Your task to perform on an android device: Play the last video I watched on Youtube Image 0: 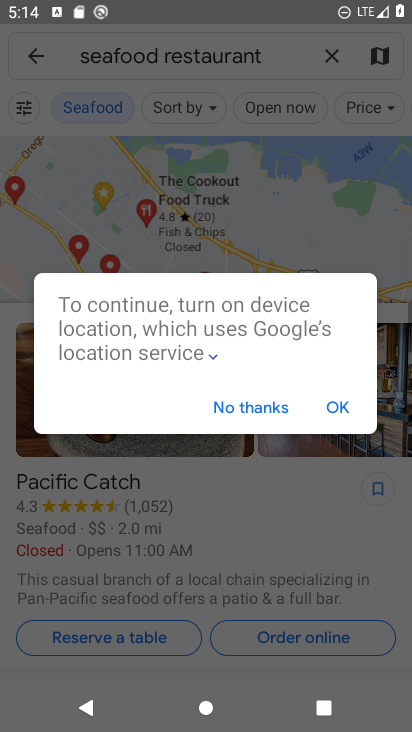
Step 0: press home button
Your task to perform on an android device: Play the last video I watched on Youtube Image 1: 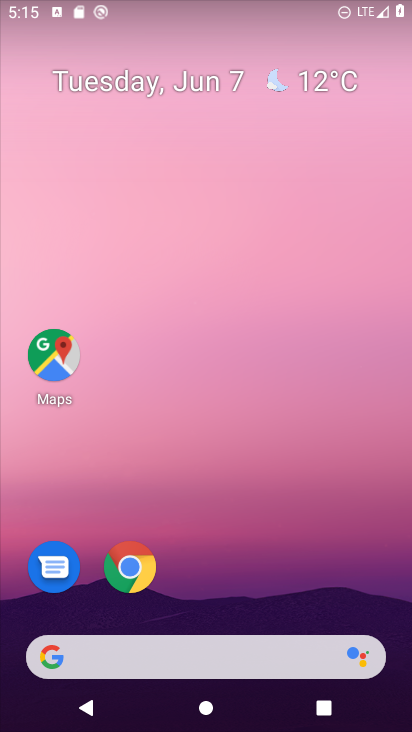
Step 1: drag from (226, 643) to (246, 33)
Your task to perform on an android device: Play the last video I watched on Youtube Image 2: 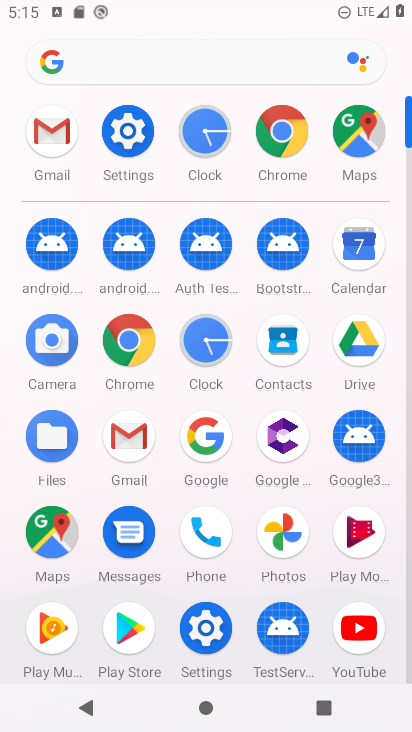
Step 2: click (356, 630)
Your task to perform on an android device: Play the last video I watched on Youtube Image 3: 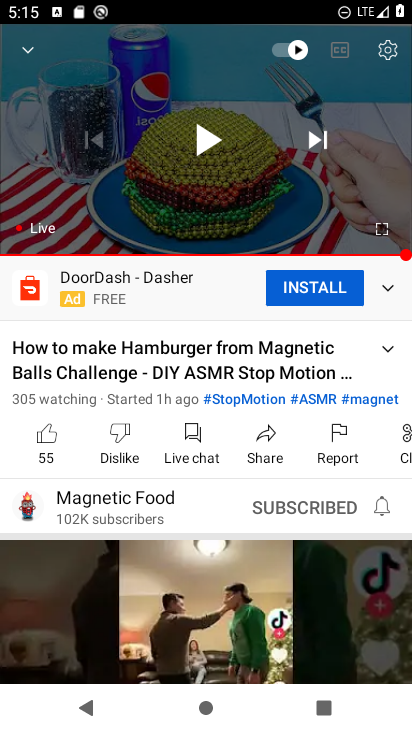
Step 3: task complete